Your task to perform on an android device: clear history in the chrome app Image 0: 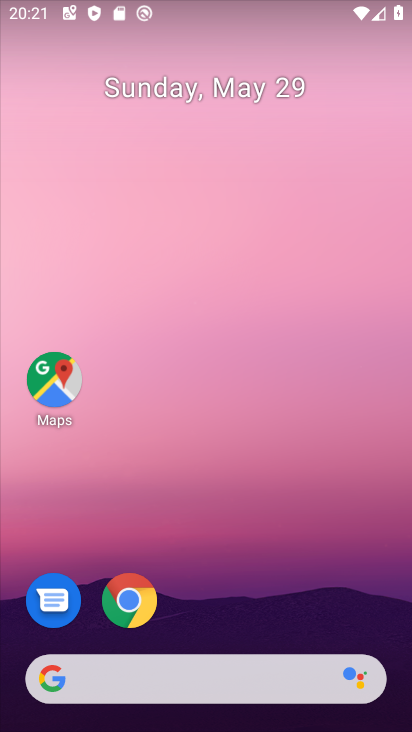
Step 0: drag from (328, 549) to (301, 113)
Your task to perform on an android device: clear history in the chrome app Image 1: 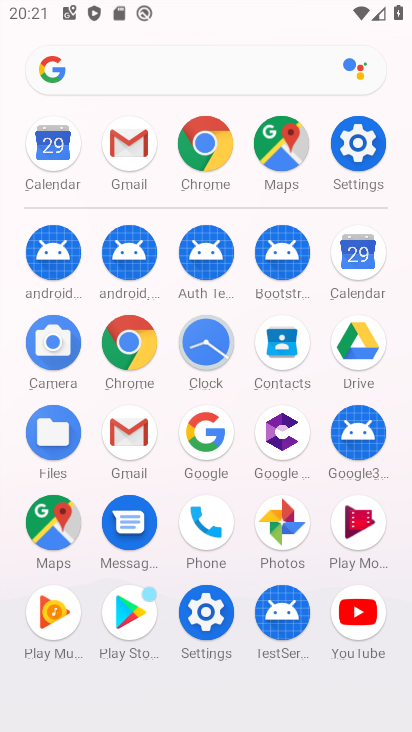
Step 1: click (130, 352)
Your task to perform on an android device: clear history in the chrome app Image 2: 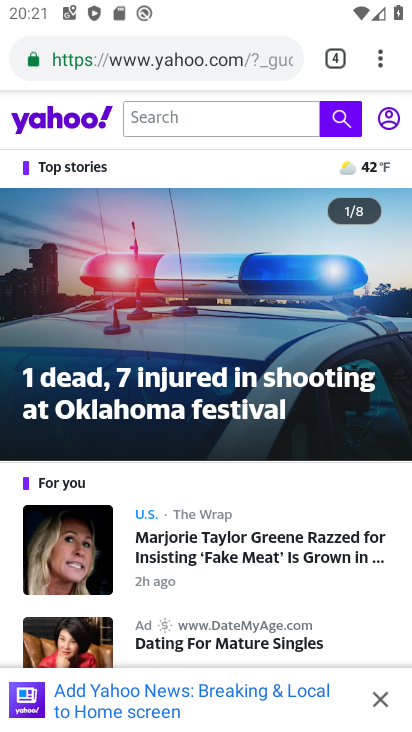
Step 2: drag from (379, 62) to (239, 315)
Your task to perform on an android device: clear history in the chrome app Image 3: 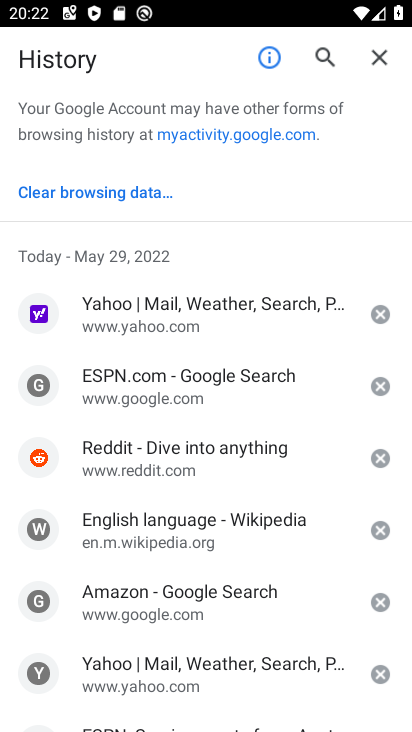
Step 3: click (140, 201)
Your task to perform on an android device: clear history in the chrome app Image 4: 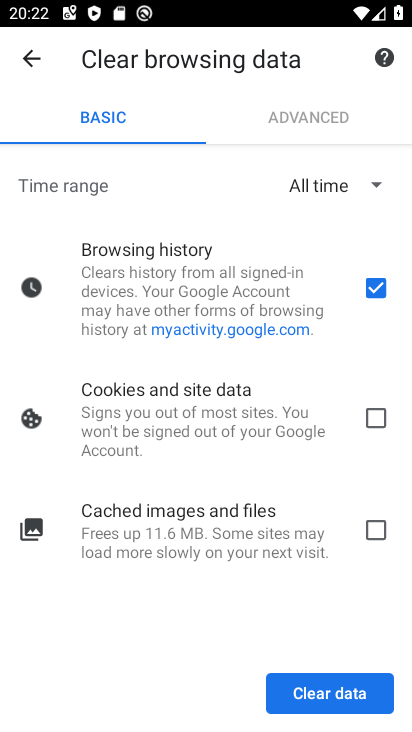
Step 4: click (339, 693)
Your task to perform on an android device: clear history in the chrome app Image 5: 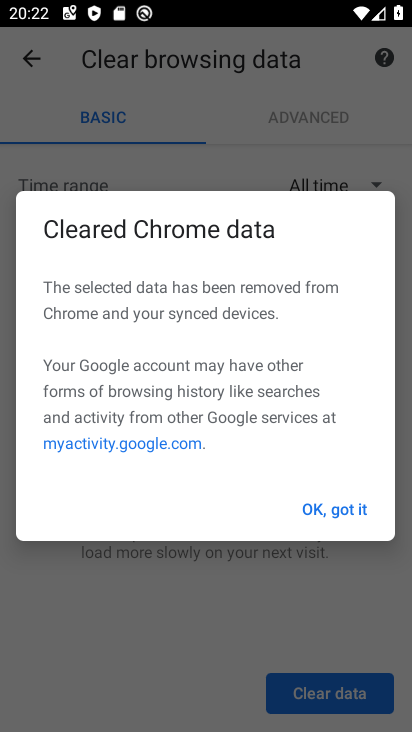
Step 5: click (342, 514)
Your task to perform on an android device: clear history in the chrome app Image 6: 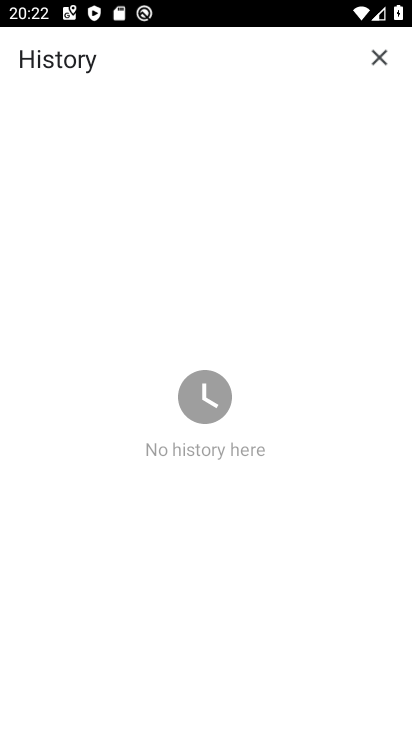
Step 6: task complete